Your task to perform on an android device: change text size in settings app Image 0: 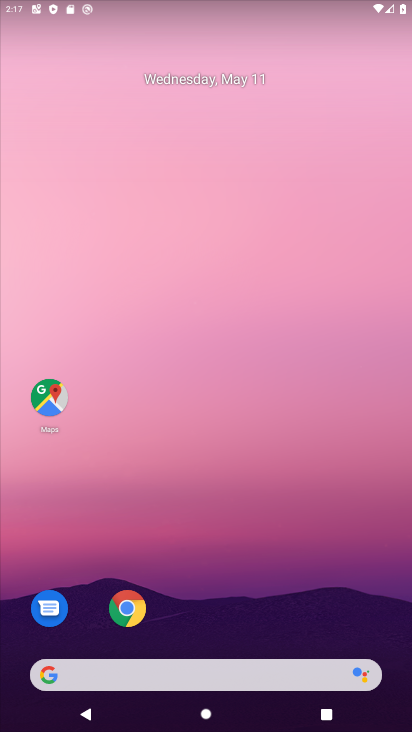
Step 0: drag from (247, 603) to (250, 321)
Your task to perform on an android device: change text size in settings app Image 1: 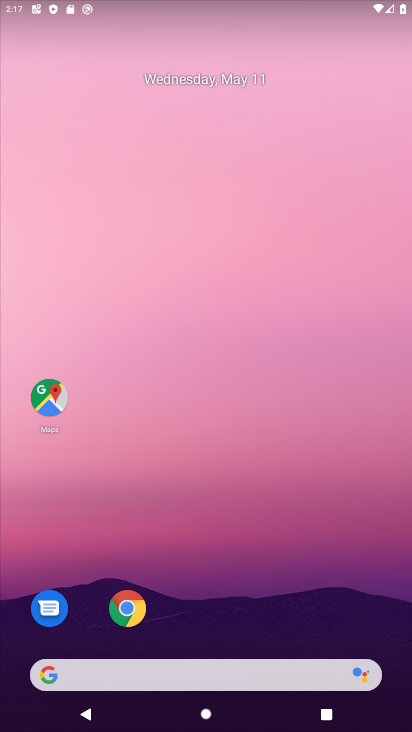
Step 1: drag from (289, 562) to (289, 7)
Your task to perform on an android device: change text size in settings app Image 2: 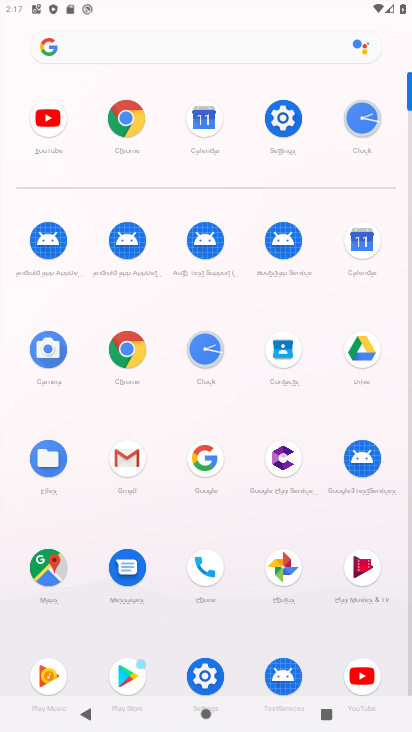
Step 2: click (289, 128)
Your task to perform on an android device: change text size in settings app Image 3: 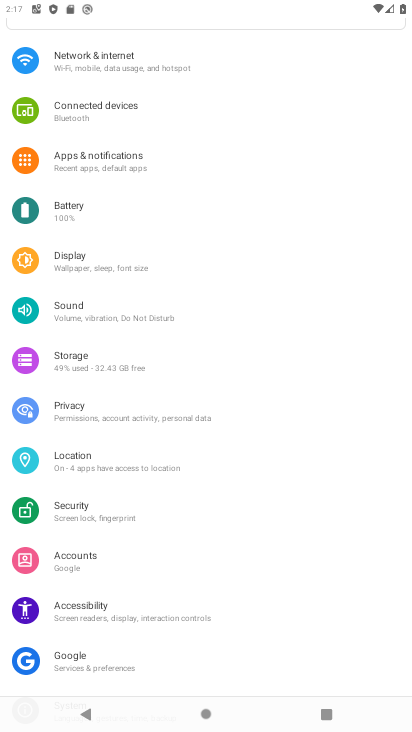
Step 3: click (96, 262)
Your task to perform on an android device: change text size in settings app Image 4: 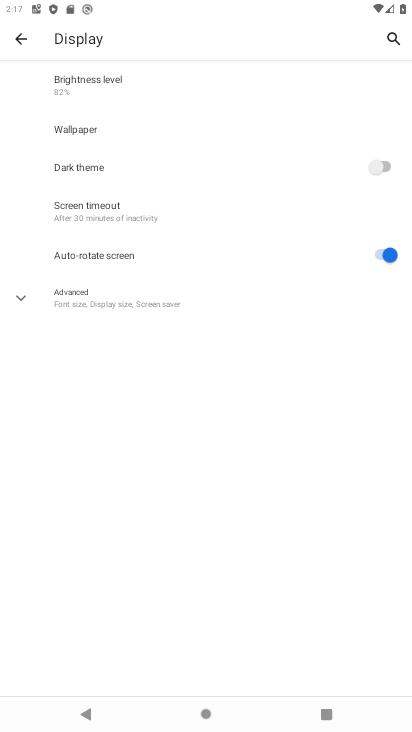
Step 4: click (102, 294)
Your task to perform on an android device: change text size in settings app Image 5: 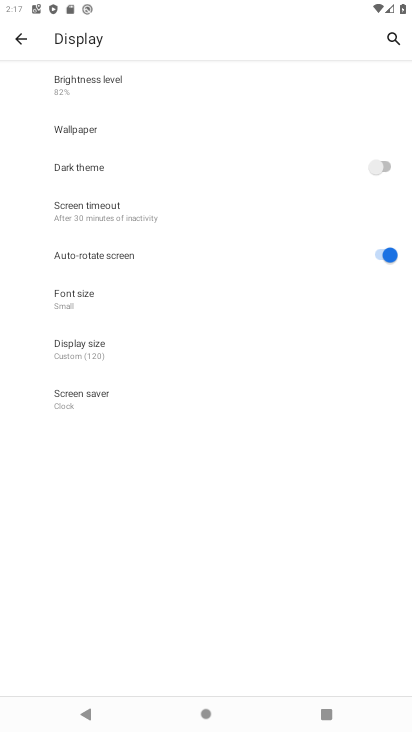
Step 5: click (95, 294)
Your task to perform on an android device: change text size in settings app Image 6: 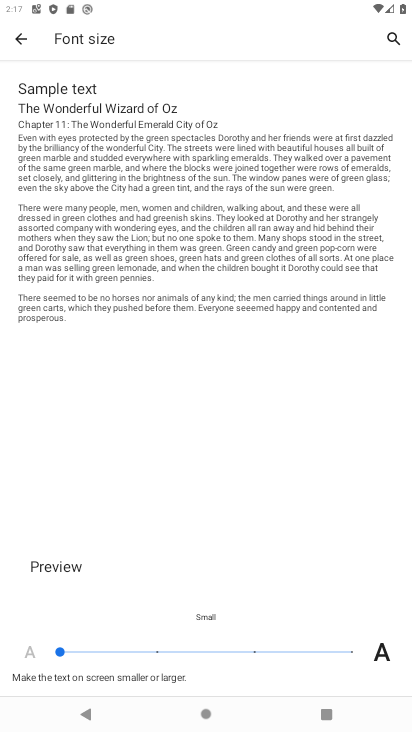
Step 6: click (157, 651)
Your task to perform on an android device: change text size in settings app Image 7: 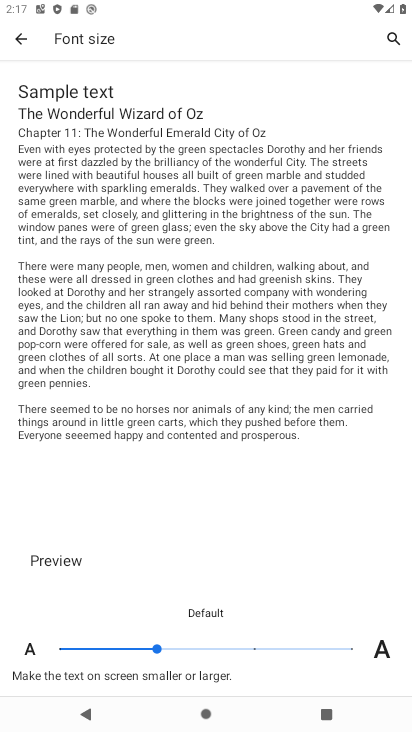
Step 7: task complete